Your task to perform on an android device: Open my contact list Image 0: 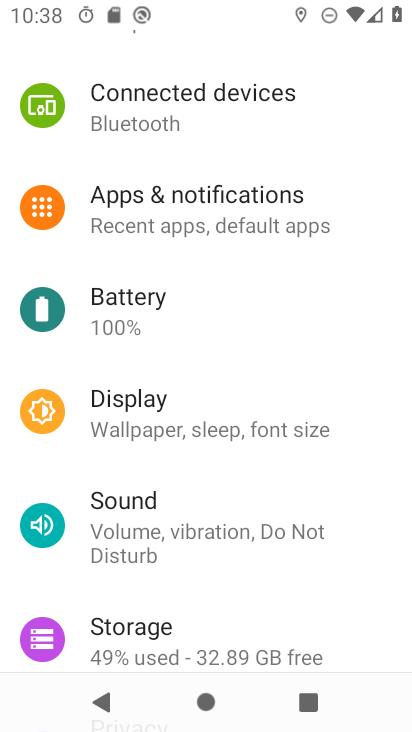
Step 0: press home button
Your task to perform on an android device: Open my contact list Image 1: 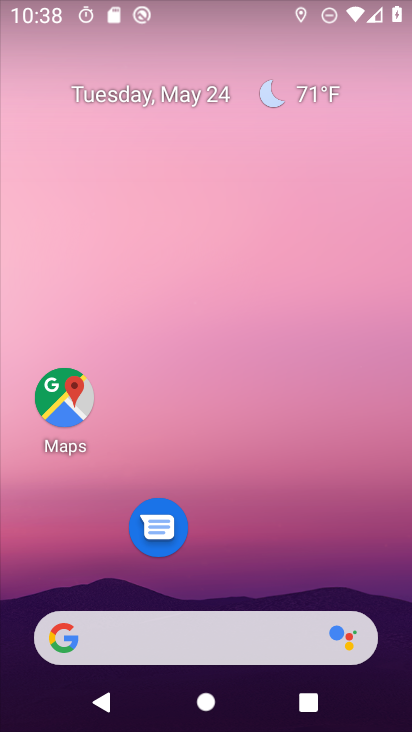
Step 1: drag from (269, 563) to (298, 99)
Your task to perform on an android device: Open my contact list Image 2: 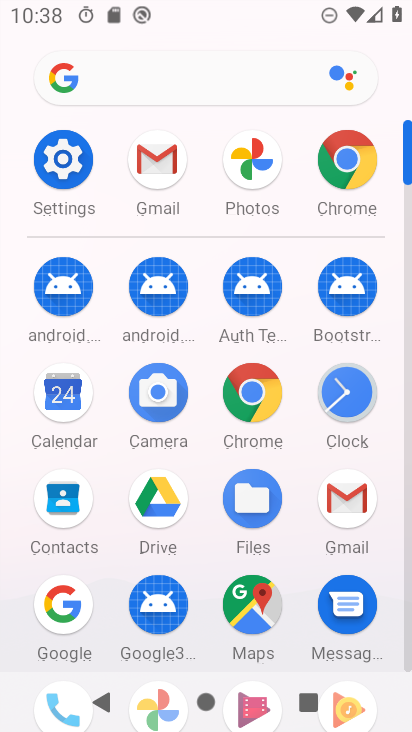
Step 2: click (65, 495)
Your task to perform on an android device: Open my contact list Image 3: 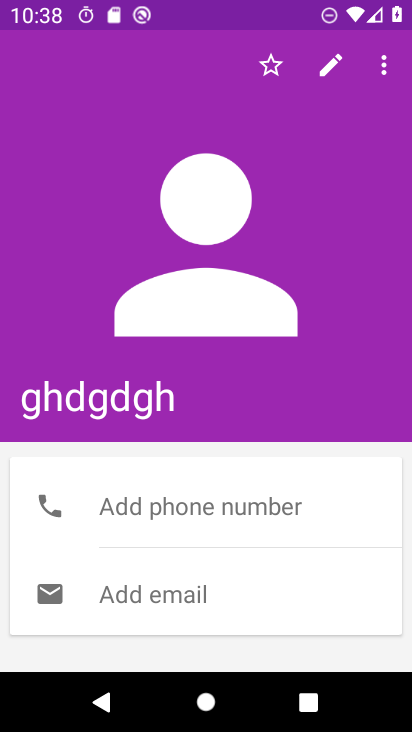
Step 3: task complete